Your task to perform on an android device: turn off translation in the chrome app Image 0: 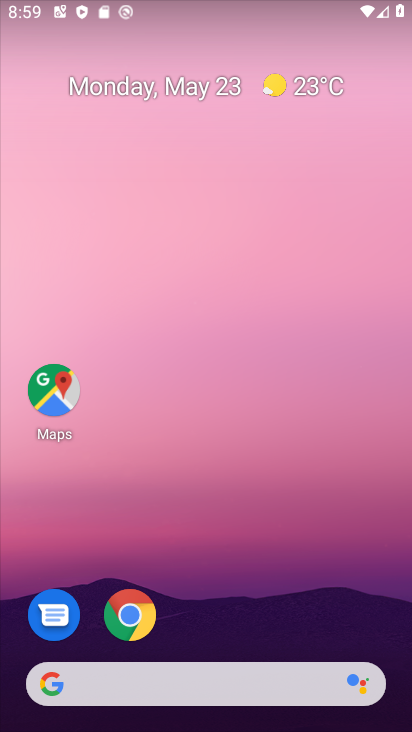
Step 0: click (131, 613)
Your task to perform on an android device: turn off translation in the chrome app Image 1: 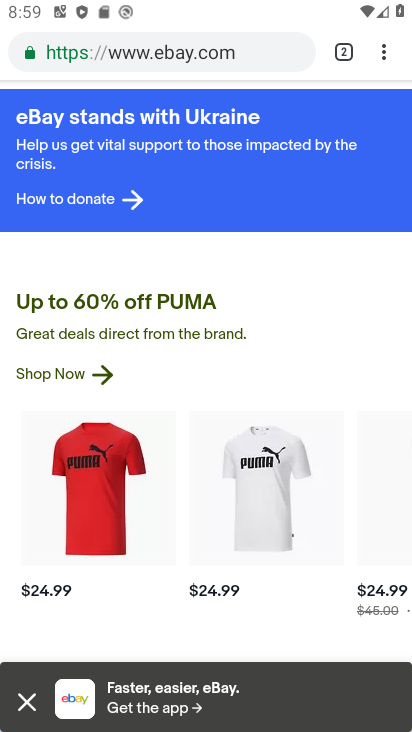
Step 1: click (386, 50)
Your task to perform on an android device: turn off translation in the chrome app Image 2: 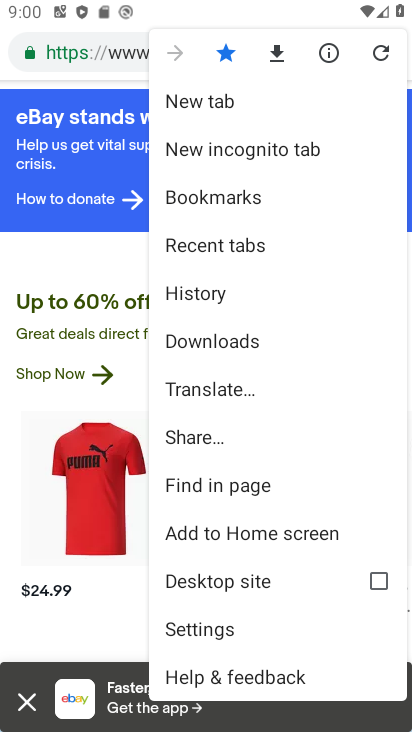
Step 2: click (206, 637)
Your task to perform on an android device: turn off translation in the chrome app Image 3: 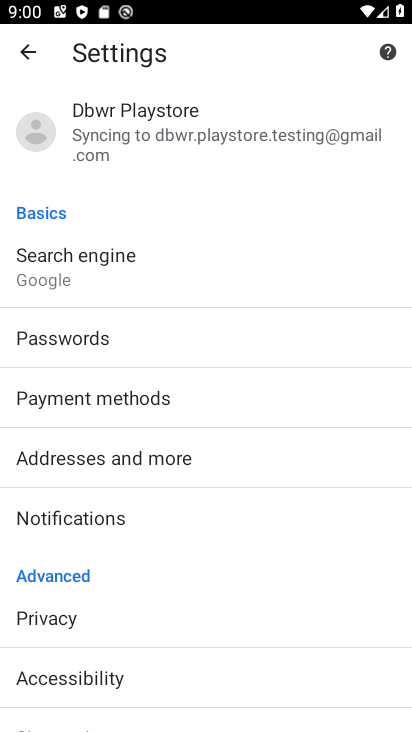
Step 3: drag from (126, 608) to (170, 491)
Your task to perform on an android device: turn off translation in the chrome app Image 4: 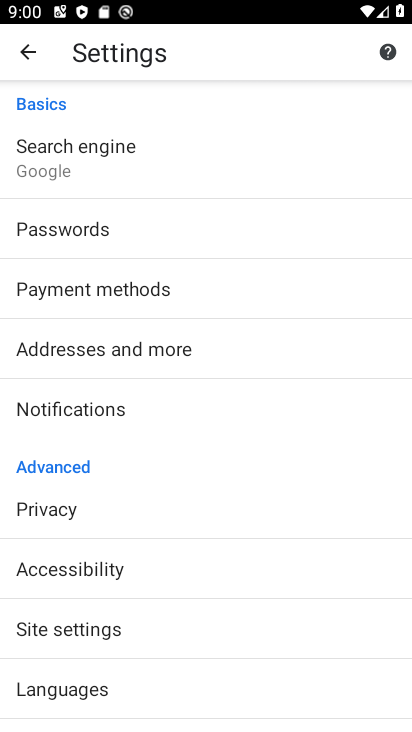
Step 4: drag from (191, 613) to (195, 521)
Your task to perform on an android device: turn off translation in the chrome app Image 5: 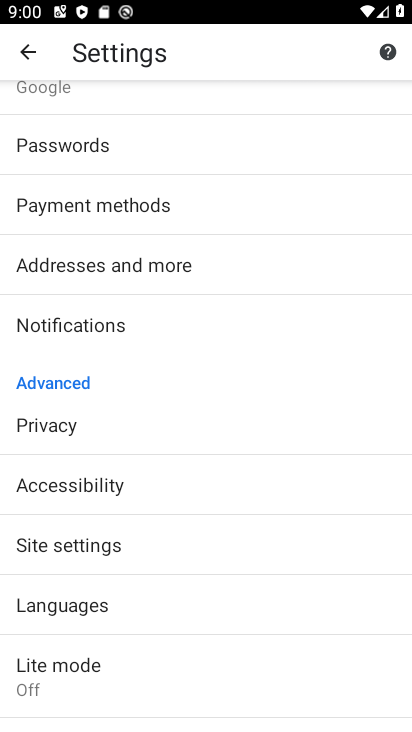
Step 5: click (88, 609)
Your task to perform on an android device: turn off translation in the chrome app Image 6: 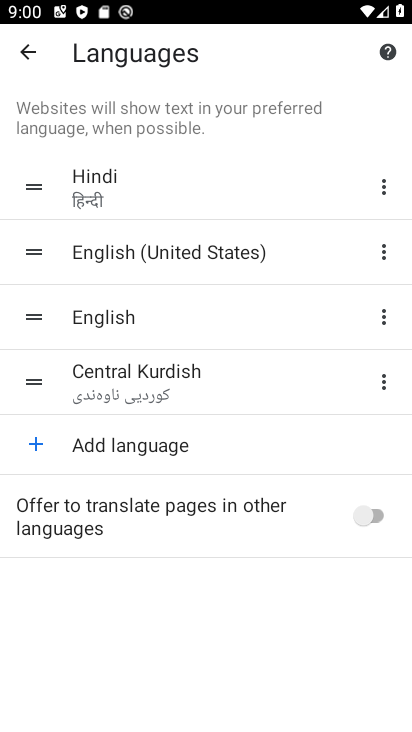
Step 6: task complete